Your task to perform on an android device: Go to settings Image 0: 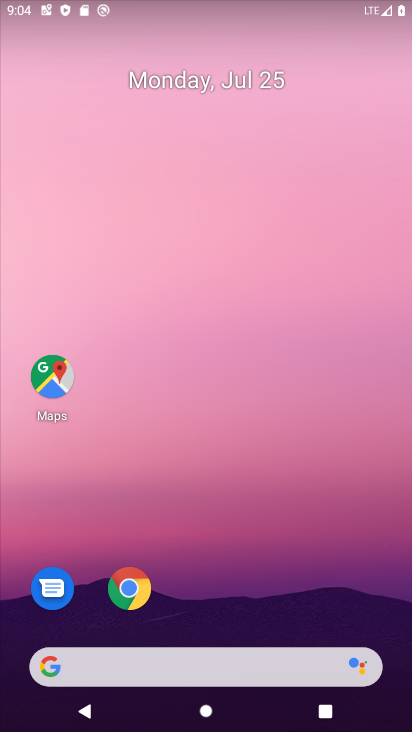
Step 0: drag from (196, 619) to (233, 417)
Your task to perform on an android device: Go to settings Image 1: 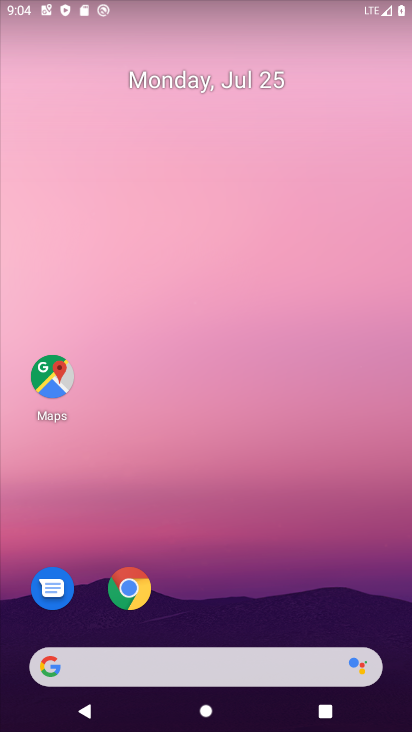
Step 1: drag from (201, 610) to (242, 5)
Your task to perform on an android device: Go to settings Image 2: 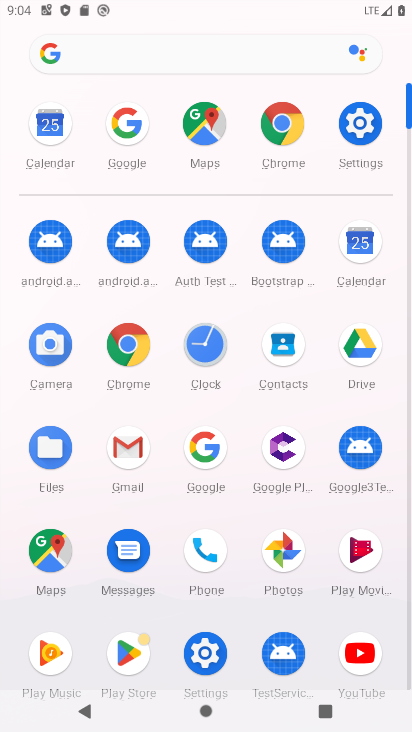
Step 2: click (381, 144)
Your task to perform on an android device: Go to settings Image 3: 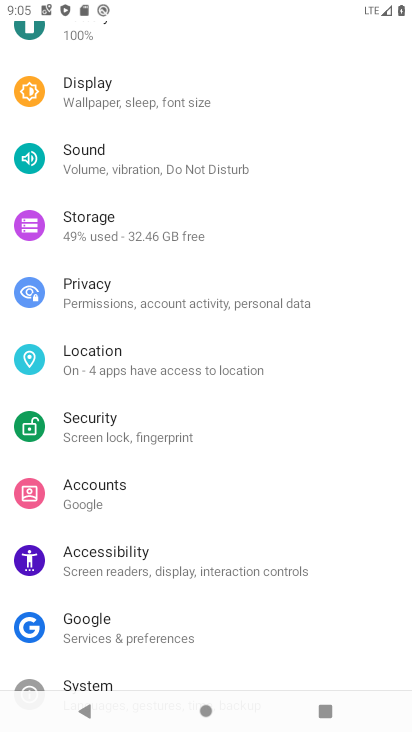
Step 3: press home button
Your task to perform on an android device: Go to settings Image 4: 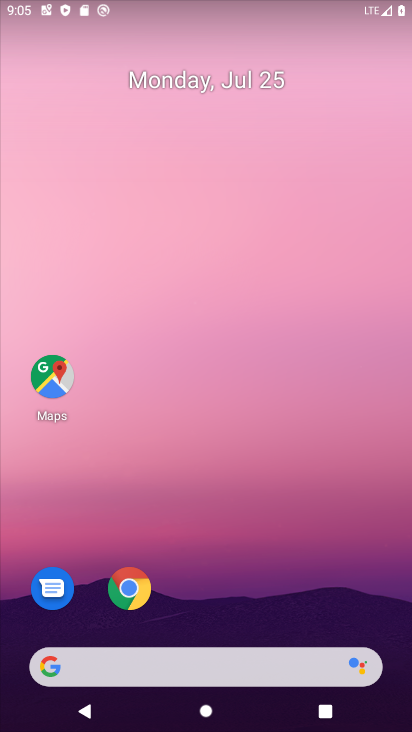
Step 4: drag from (193, 614) to (407, 3)
Your task to perform on an android device: Go to settings Image 5: 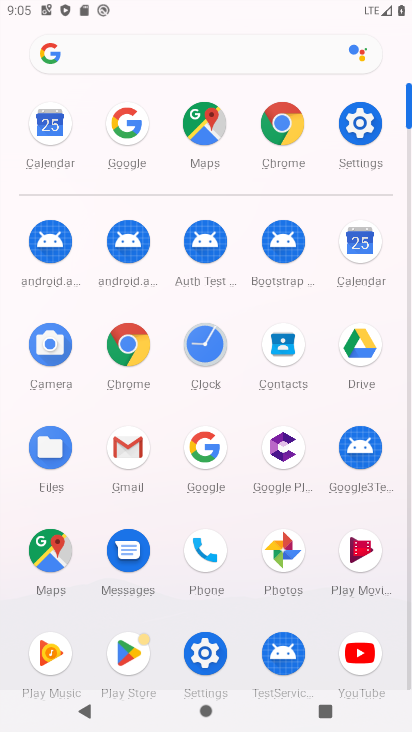
Step 5: click (193, 640)
Your task to perform on an android device: Go to settings Image 6: 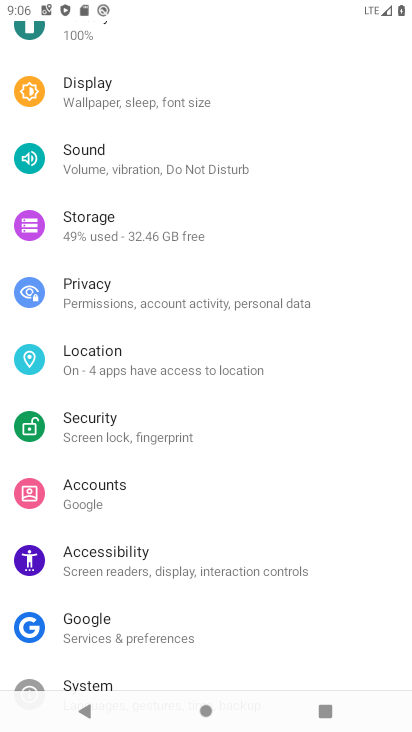
Step 6: task complete